Your task to perform on an android device: star an email in the gmail app Image 0: 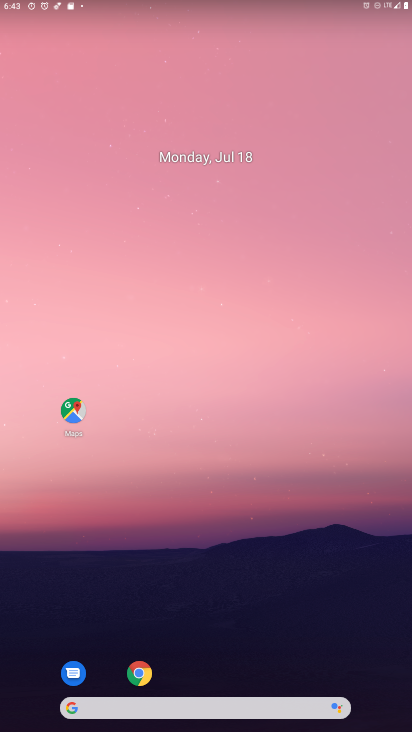
Step 0: drag from (204, 607) to (227, 143)
Your task to perform on an android device: star an email in the gmail app Image 1: 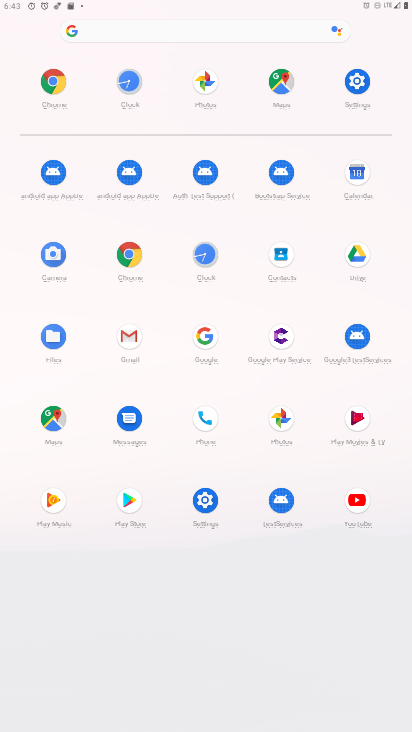
Step 1: click (132, 335)
Your task to perform on an android device: star an email in the gmail app Image 2: 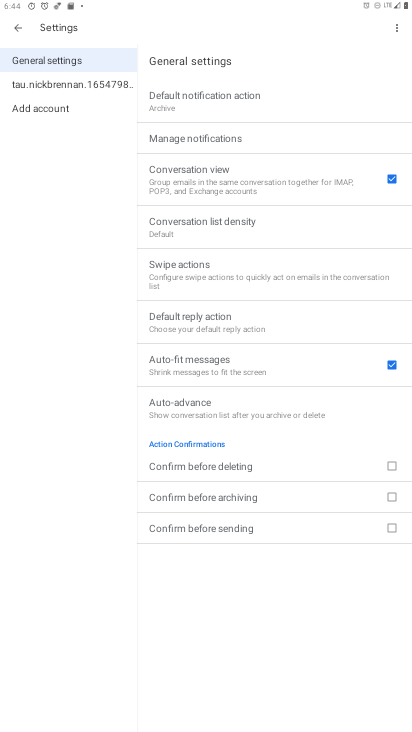
Step 2: click (16, 28)
Your task to perform on an android device: star an email in the gmail app Image 3: 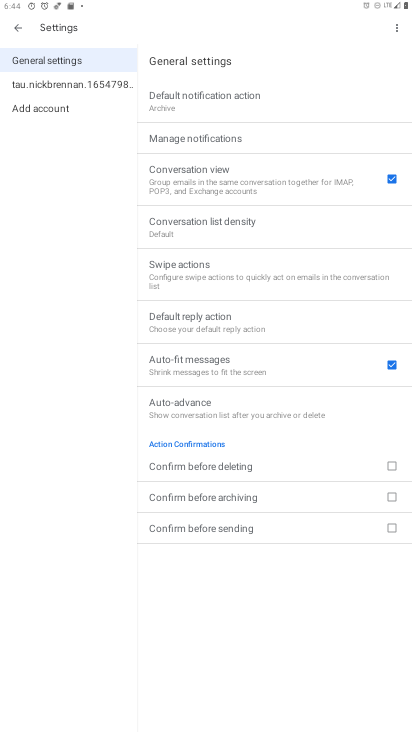
Step 3: click (16, 29)
Your task to perform on an android device: star an email in the gmail app Image 4: 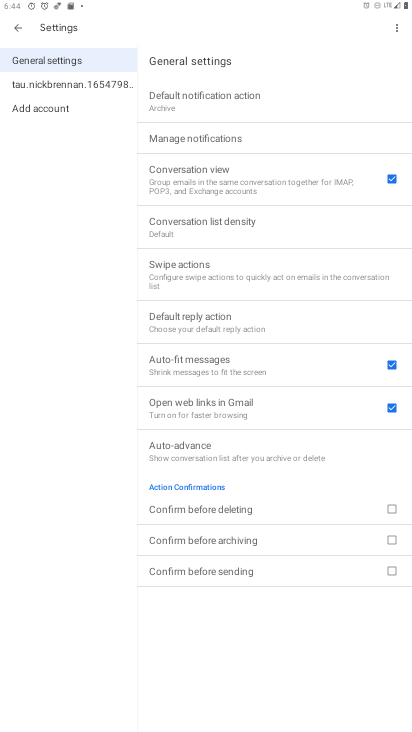
Step 4: click (16, 29)
Your task to perform on an android device: star an email in the gmail app Image 5: 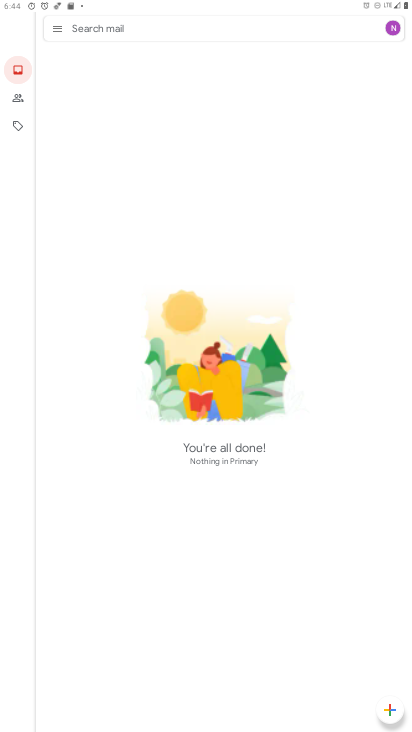
Step 5: task complete